Your task to perform on an android device: Go to ESPN.com Image 0: 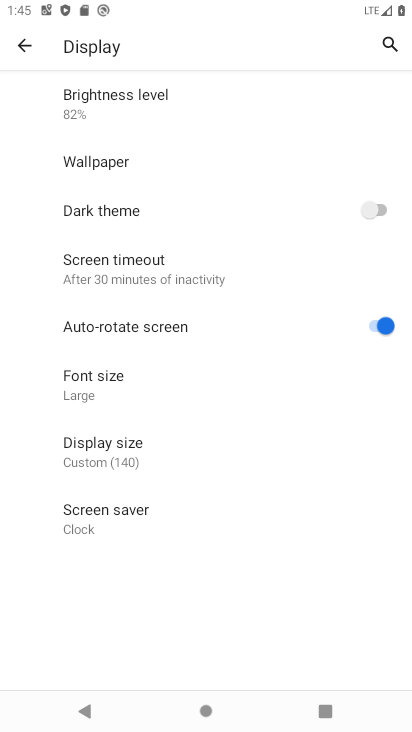
Step 0: press home button
Your task to perform on an android device: Go to ESPN.com Image 1: 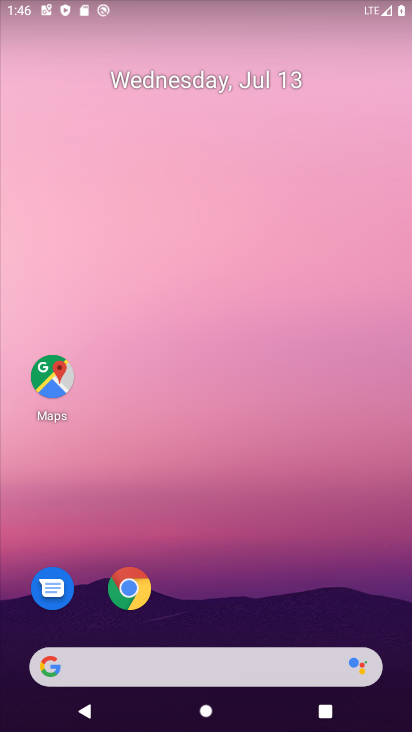
Step 1: click (119, 579)
Your task to perform on an android device: Go to ESPN.com Image 2: 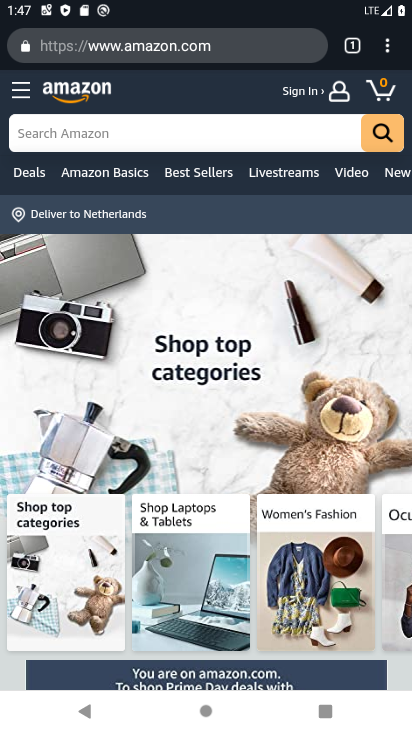
Step 2: click (233, 40)
Your task to perform on an android device: Go to ESPN.com Image 3: 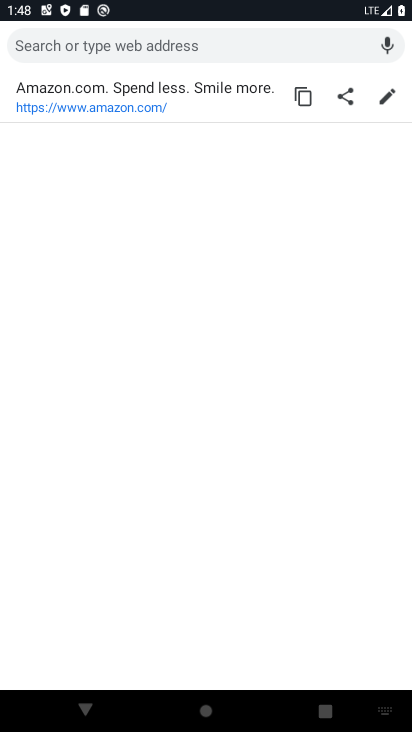
Step 3: type "ESPN.com"
Your task to perform on an android device: Go to ESPN.com Image 4: 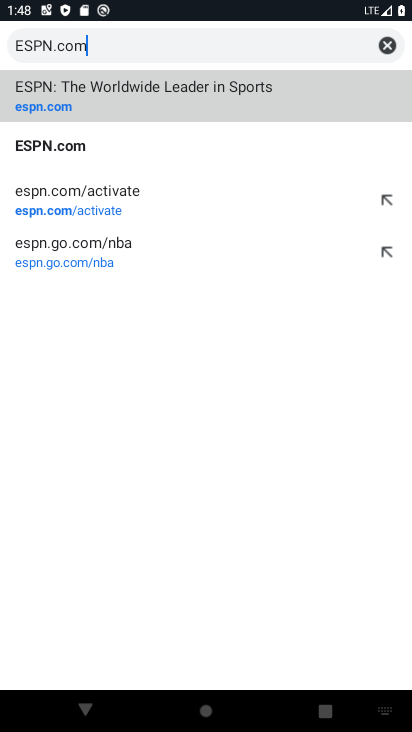
Step 4: click (66, 147)
Your task to perform on an android device: Go to ESPN.com Image 5: 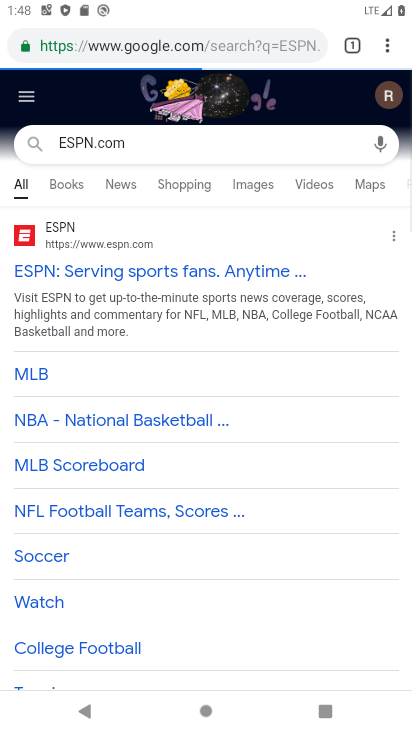
Step 5: task complete